Your task to perform on an android device: turn off notifications settings in the gmail app Image 0: 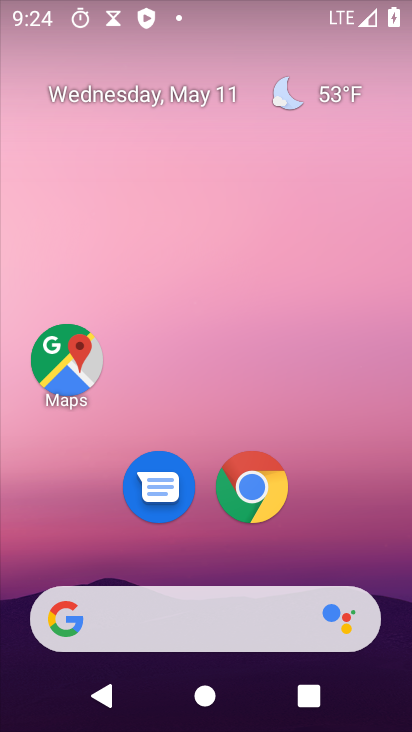
Step 0: drag from (363, 473) to (281, 44)
Your task to perform on an android device: turn off notifications settings in the gmail app Image 1: 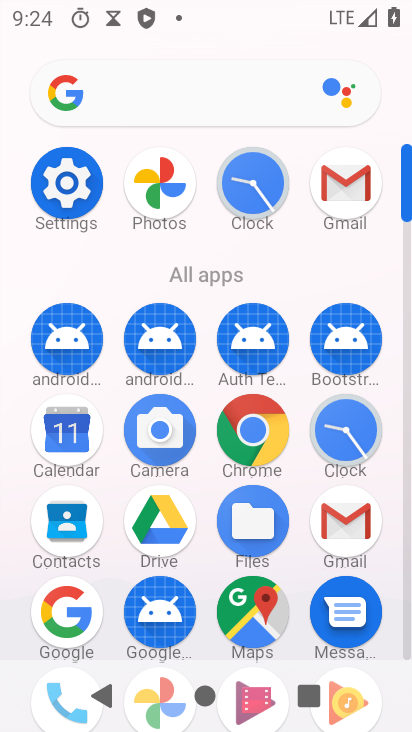
Step 1: click (345, 182)
Your task to perform on an android device: turn off notifications settings in the gmail app Image 2: 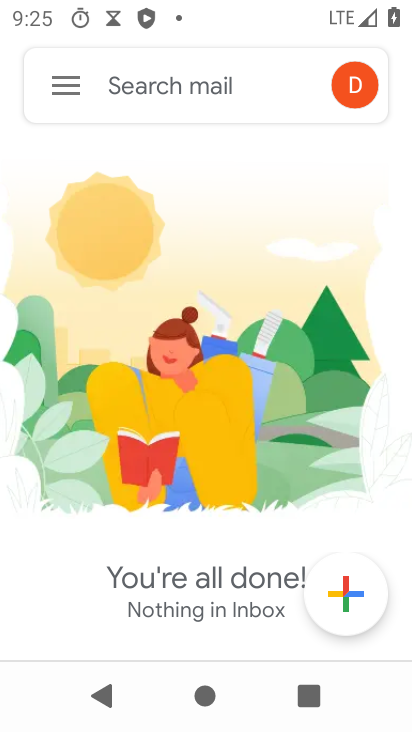
Step 2: click (68, 87)
Your task to perform on an android device: turn off notifications settings in the gmail app Image 3: 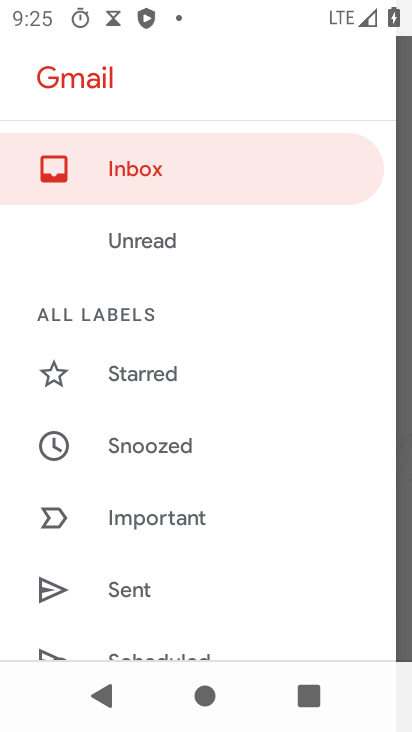
Step 3: drag from (201, 493) to (212, 382)
Your task to perform on an android device: turn off notifications settings in the gmail app Image 4: 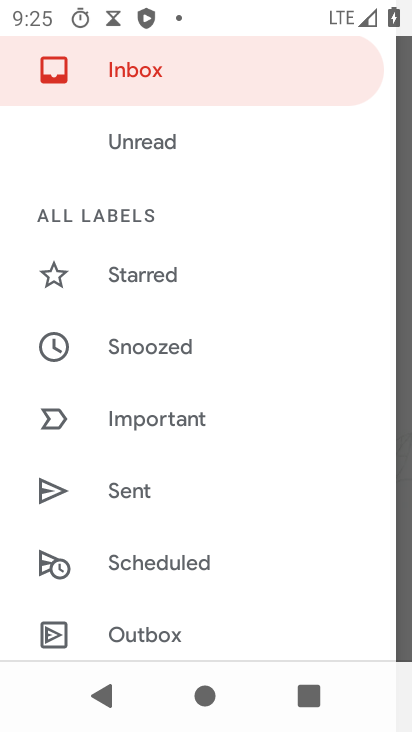
Step 4: drag from (187, 513) to (221, 397)
Your task to perform on an android device: turn off notifications settings in the gmail app Image 5: 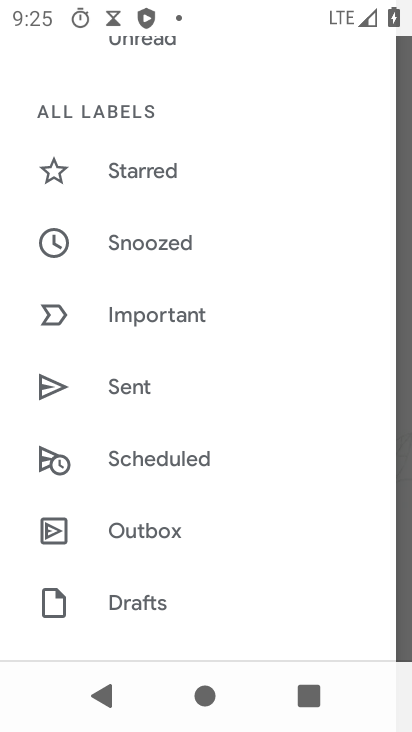
Step 5: drag from (159, 507) to (214, 406)
Your task to perform on an android device: turn off notifications settings in the gmail app Image 6: 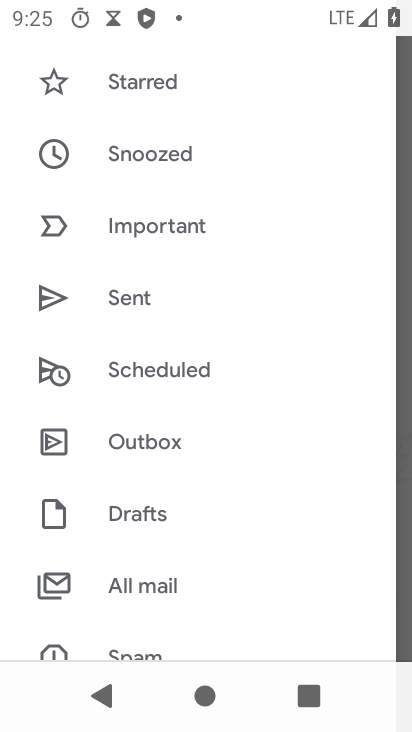
Step 6: drag from (147, 489) to (208, 382)
Your task to perform on an android device: turn off notifications settings in the gmail app Image 7: 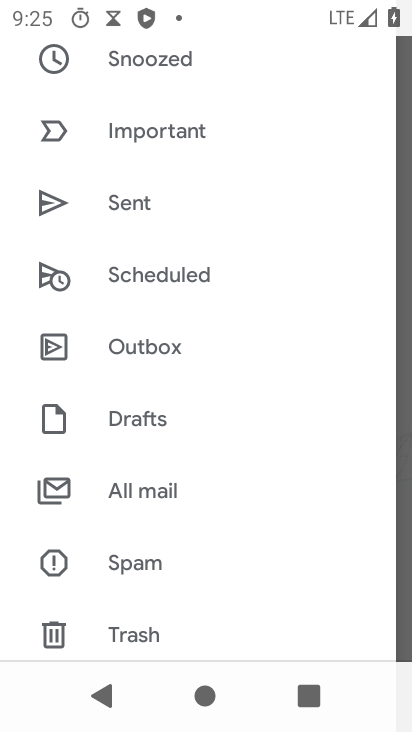
Step 7: drag from (166, 453) to (220, 349)
Your task to perform on an android device: turn off notifications settings in the gmail app Image 8: 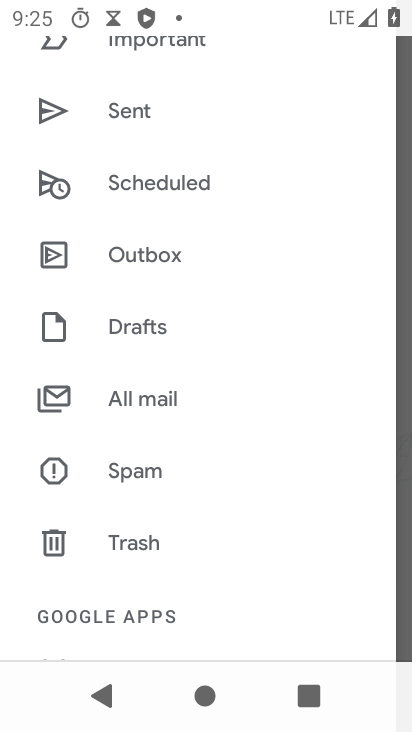
Step 8: drag from (151, 430) to (207, 323)
Your task to perform on an android device: turn off notifications settings in the gmail app Image 9: 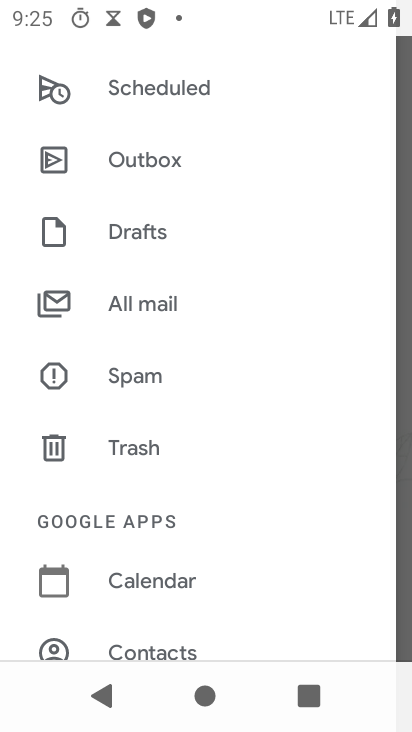
Step 9: drag from (126, 445) to (216, 326)
Your task to perform on an android device: turn off notifications settings in the gmail app Image 10: 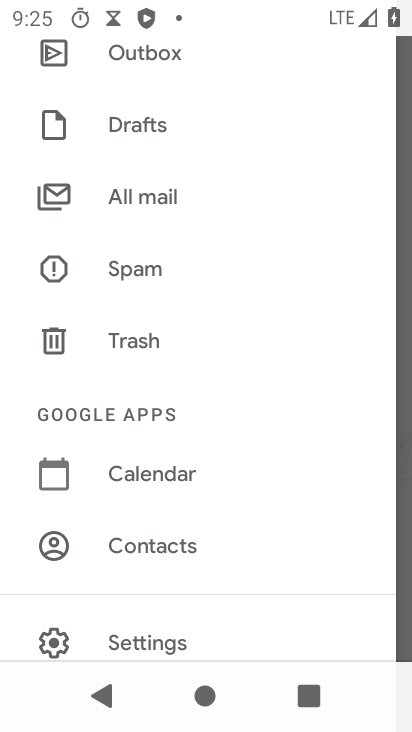
Step 10: drag from (133, 503) to (211, 381)
Your task to perform on an android device: turn off notifications settings in the gmail app Image 11: 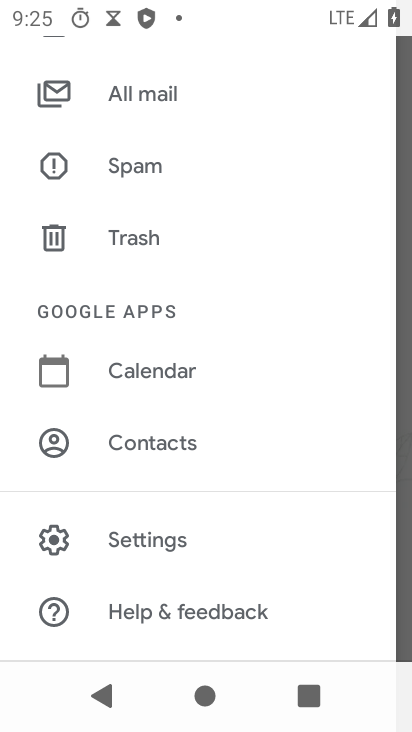
Step 11: click (142, 537)
Your task to perform on an android device: turn off notifications settings in the gmail app Image 12: 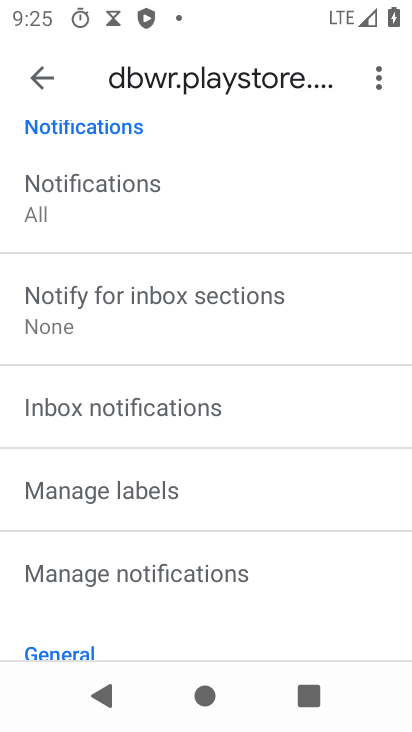
Step 12: click (123, 567)
Your task to perform on an android device: turn off notifications settings in the gmail app Image 13: 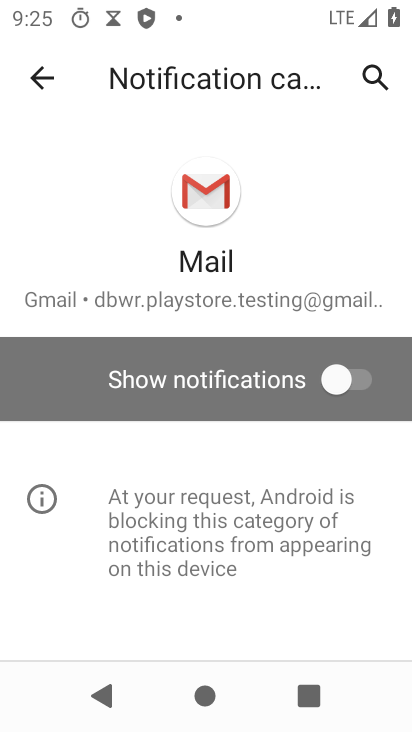
Step 13: task complete